Your task to perform on an android device: add a contact Image 0: 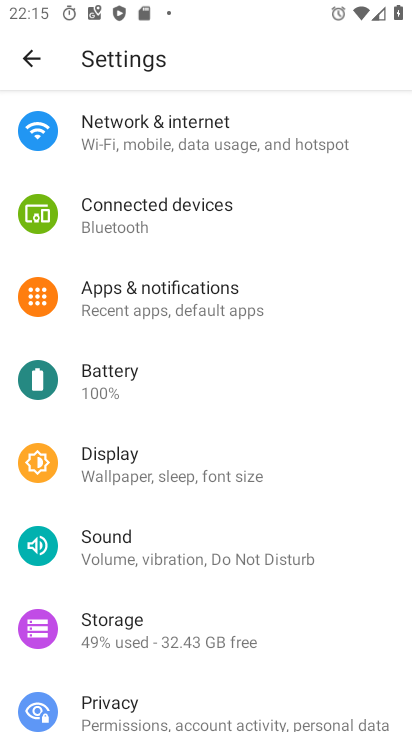
Step 0: press home button
Your task to perform on an android device: add a contact Image 1: 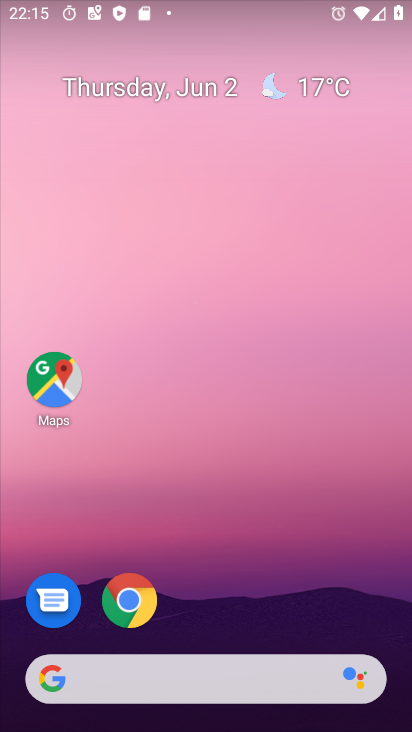
Step 1: drag from (377, 610) to (366, 247)
Your task to perform on an android device: add a contact Image 2: 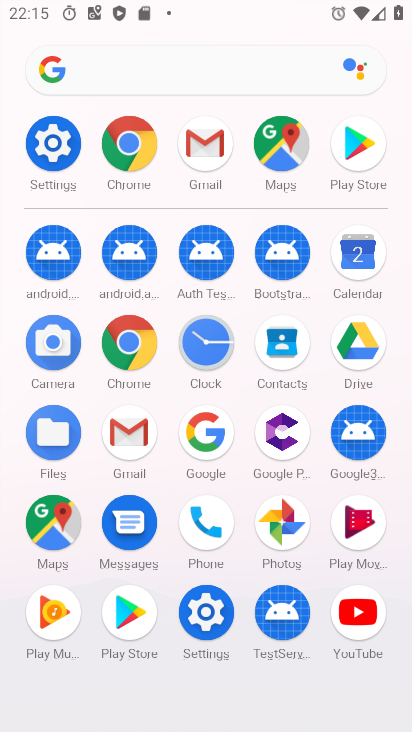
Step 2: click (285, 354)
Your task to perform on an android device: add a contact Image 3: 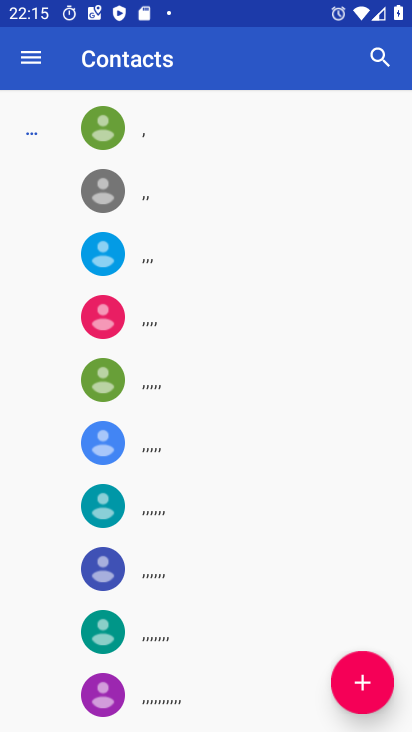
Step 3: click (369, 698)
Your task to perform on an android device: add a contact Image 4: 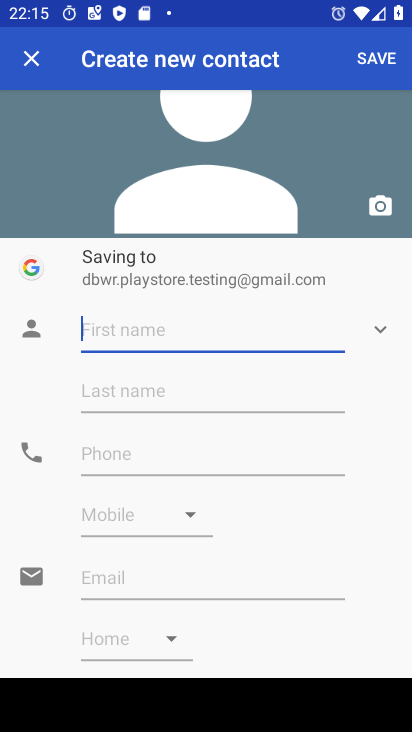
Step 4: type "sali"
Your task to perform on an android device: add a contact Image 5: 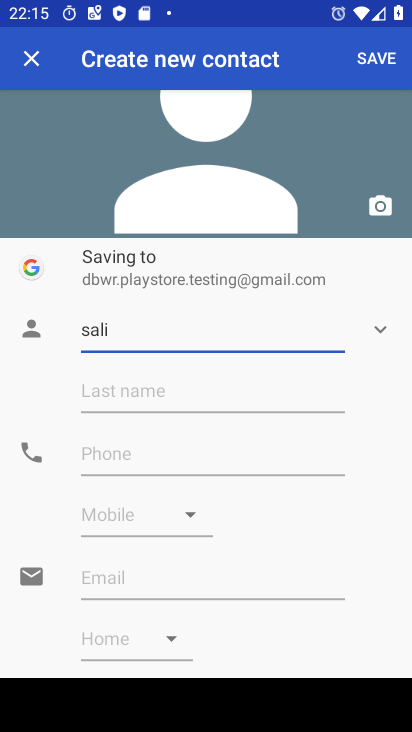
Step 5: click (236, 458)
Your task to perform on an android device: add a contact Image 6: 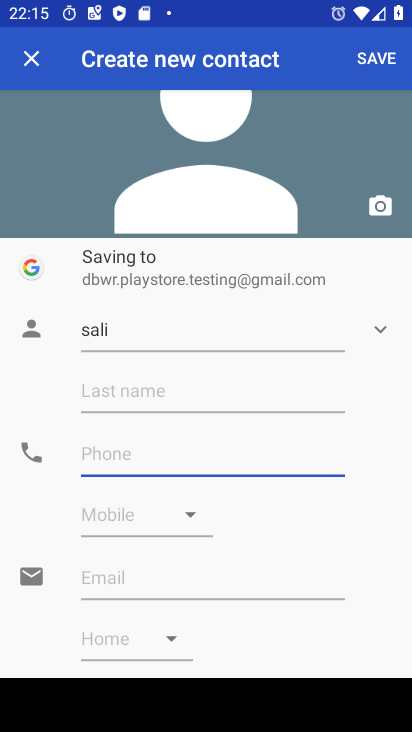
Step 6: type "123456789"
Your task to perform on an android device: add a contact Image 7: 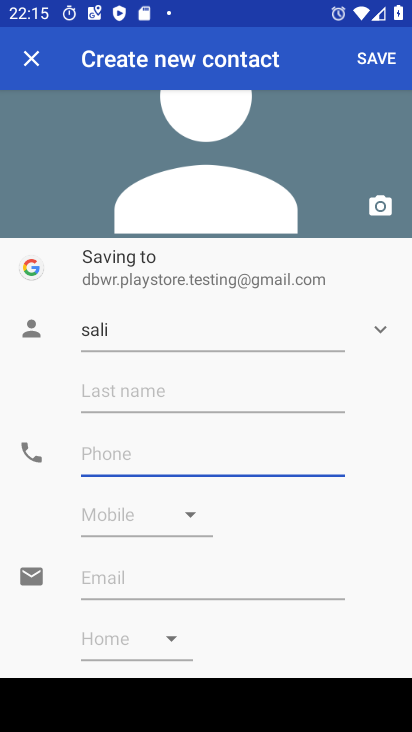
Step 7: click (389, 61)
Your task to perform on an android device: add a contact Image 8: 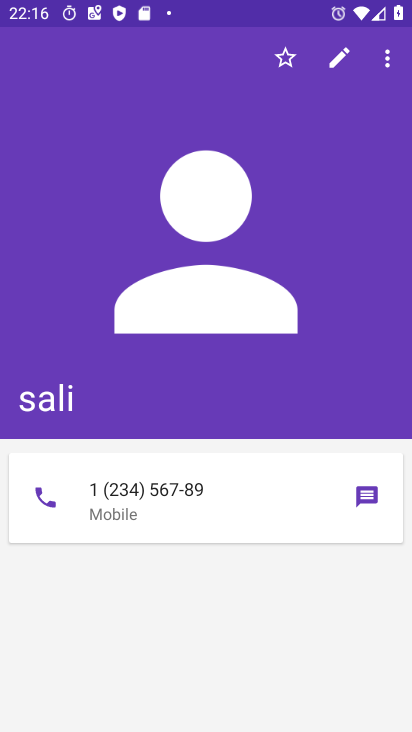
Step 8: task complete